Your task to perform on an android device: Search for Mexican restaurants on Maps Image 0: 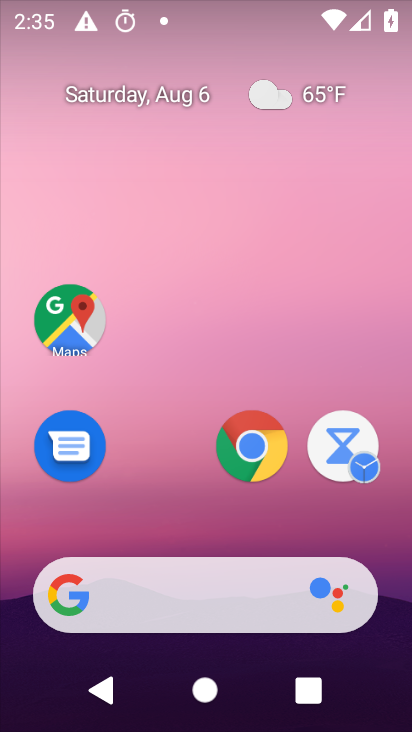
Step 0: drag from (238, 685) to (214, 376)
Your task to perform on an android device: Search for Mexican restaurants on Maps Image 1: 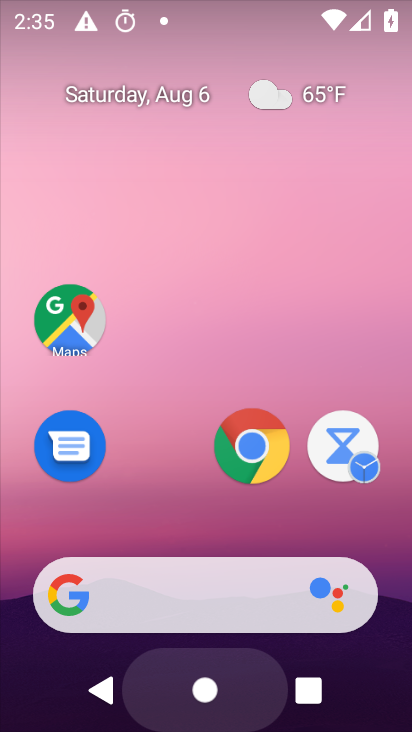
Step 1: drag from (243, 585) to (203, 293)
Your task to perform on an android device: Search for Mexican restaurants on Maps Image 2: 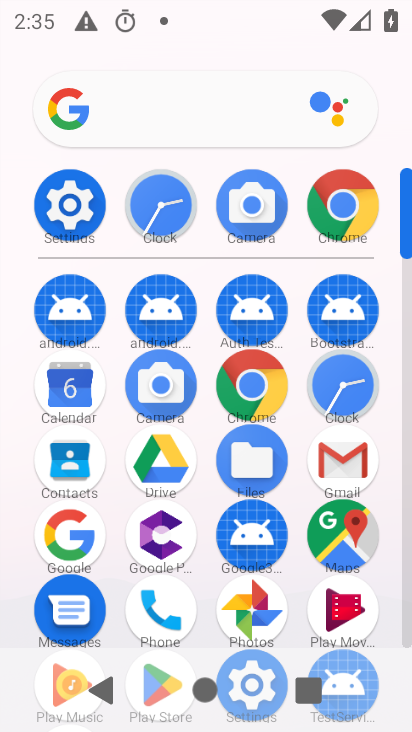
Step 2: click (345, 535)
Your task to perform on an android device: Search for Mexican restaurants on Maps Image 3: 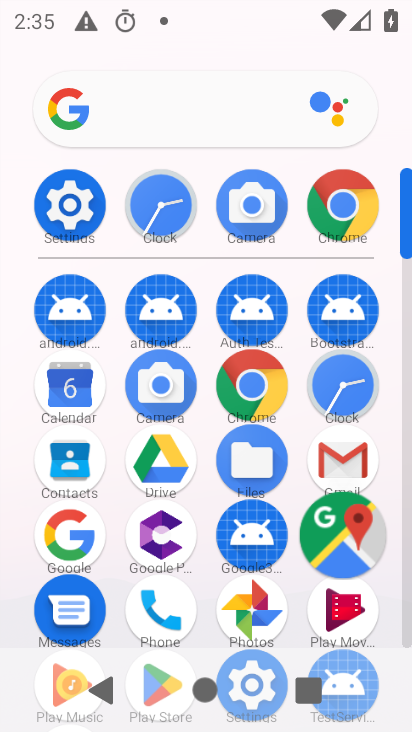
Step 3: click (345, 534)
Your task to perform on an android device: Search for Mexican restaurants on Maps Image 4: 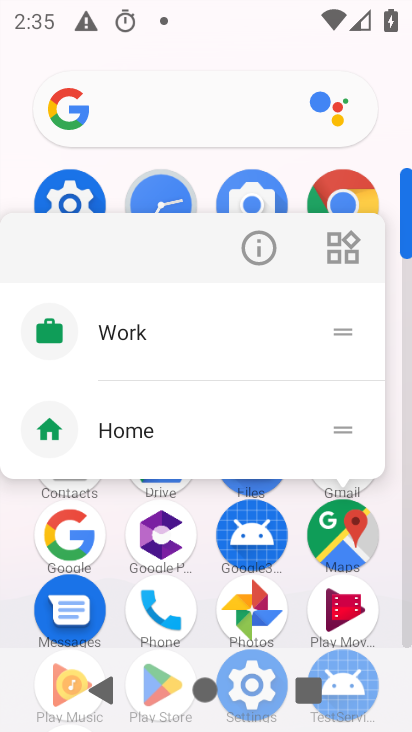
Step 4: click (342, 538)
Your task to perform on an android device: Search for Mexican restaurants on Maps Image 5: 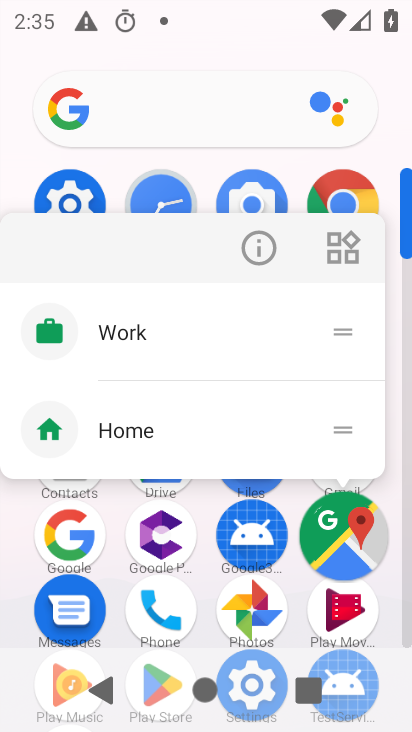
Step 5: click (343, 539)
Your task to perform on an android device: Search for Mexican restaurants on Maps Image 6: 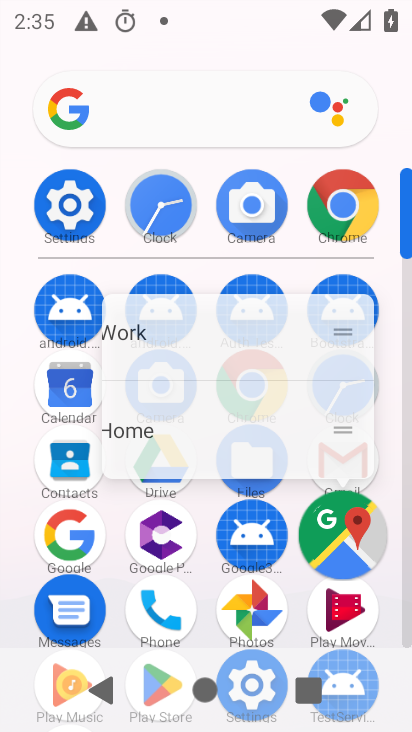
Step 6: click (338, 535)
Your task to perform on an android device: Search for Mexican restaurants on Maps Image 7: 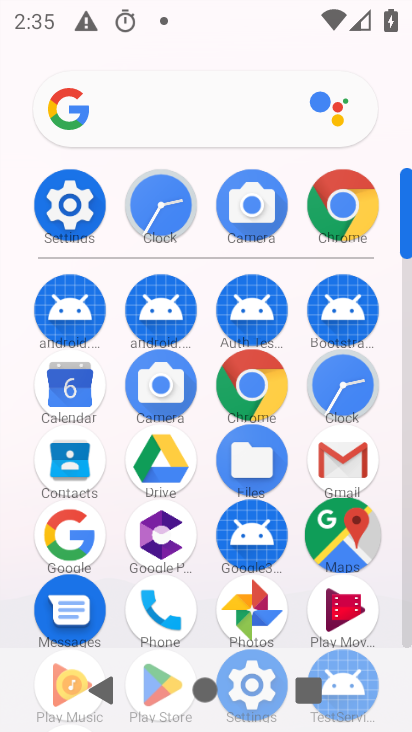
Step 7: click (337, 534)
Your task to perform on an android device: Search for Mexican restaurants on Maps Image 8: 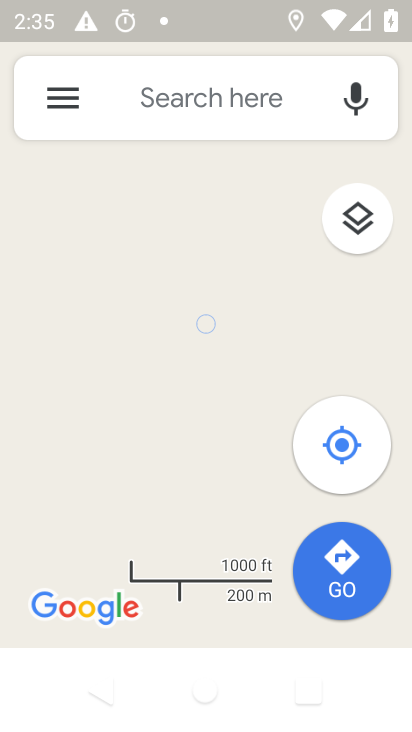
Step 8: click (141, 94)
Your task to perform on an android device: Search for Mexican restaurants on Maps Image 9: 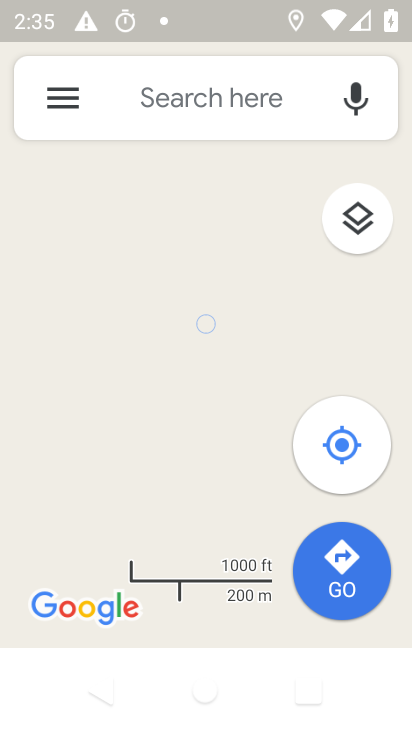
Step 9: click (141, 94)
Your task to perform on an android device: Search for Mexican restaurants on Maps Image 10: 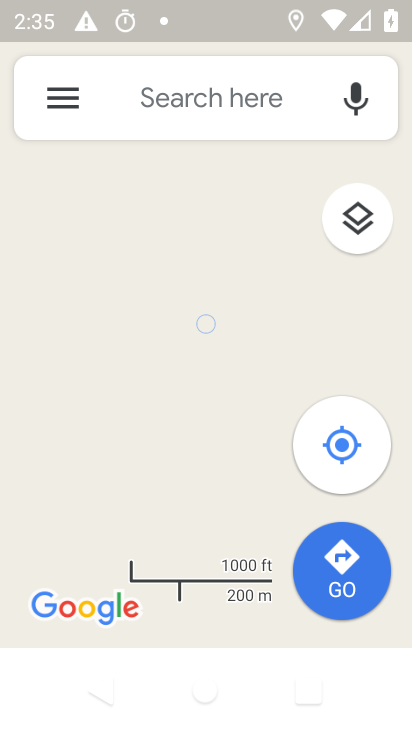
Step 10: click (138, 93)
Your task to perform on an android device: Search for Mexican restaurants on Maps Image 11: 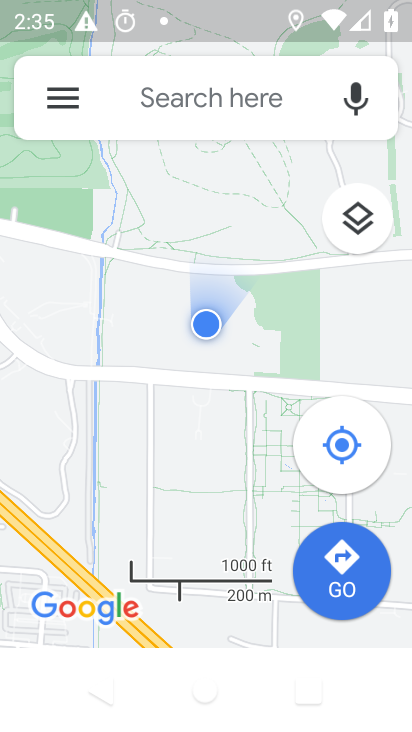
Step 11: click (138, 93)
Your task to perform on an android device: Search for Mexican restaurants on Maps Image 12: 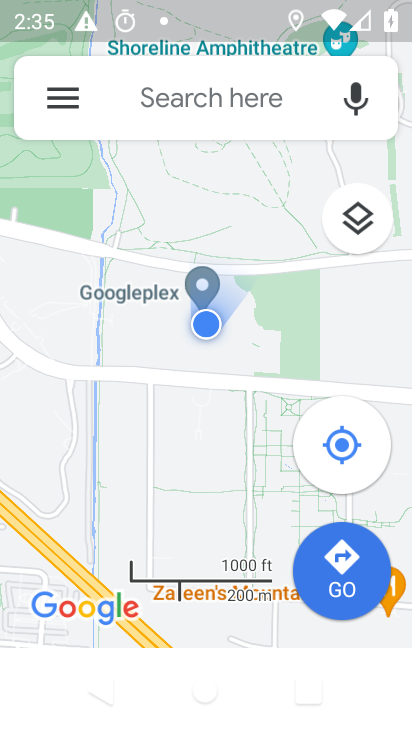
Step 12: click (137, 94)
Your task to perform on an android device: Search for Mexican restaurants on Maps Image 13: 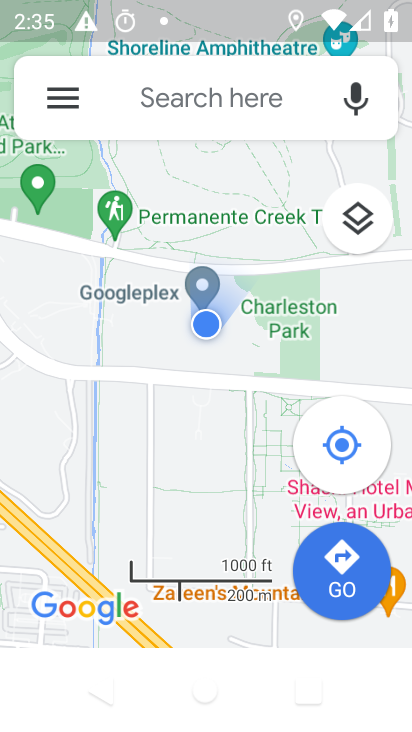
Step 13: click (137, 94)
Your task to perform on an android device: Search for Mexican restaurants on Maps Image 14: 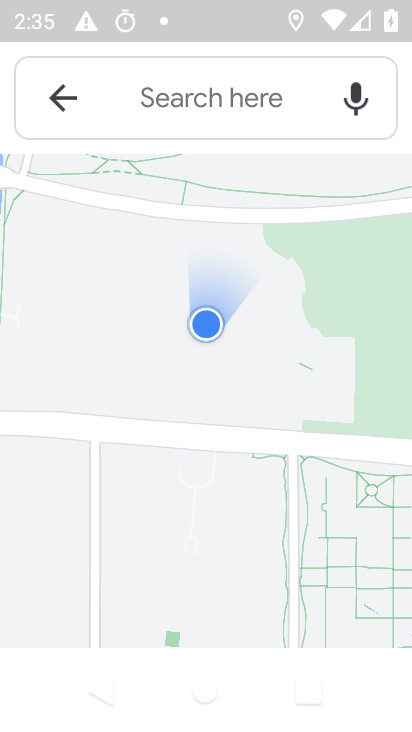
Step 14: click (137, 94)
Your task to perform on an android device: Search for Mexican restaurants on Maps Image 15: 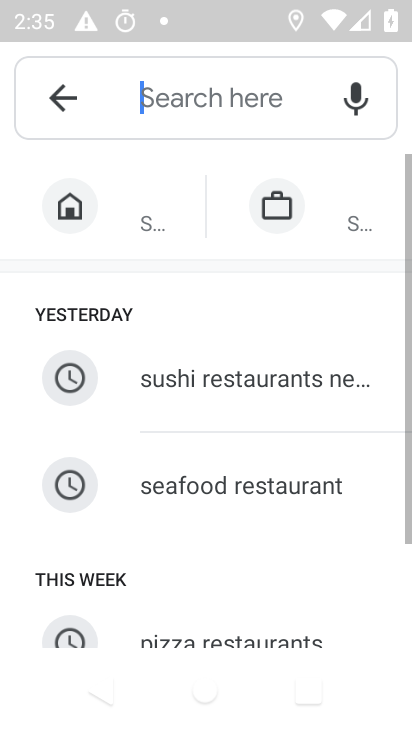
Step 15: click (136, 94)
Your task to perform on an android device: Search for Mexican restaurants on Maps Image 16: 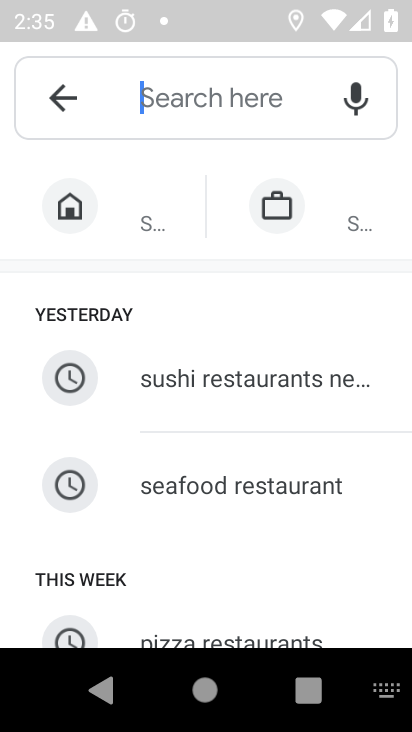
Step 16: drag from (260, 591) to (199, 286)
Your task to perform on an android device: Search for Mexican restaurants on Maps Image 17: 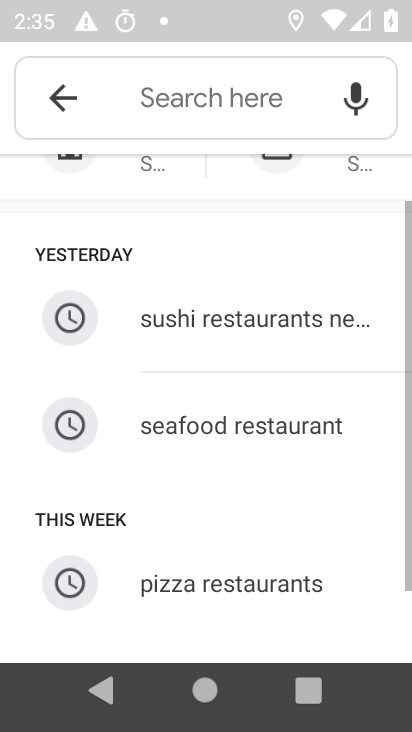
Step 17: drag from (216, 431) to (206, 253)
Your task to perform on an android device: Search for Mexican restaurants on Maps Image 18: 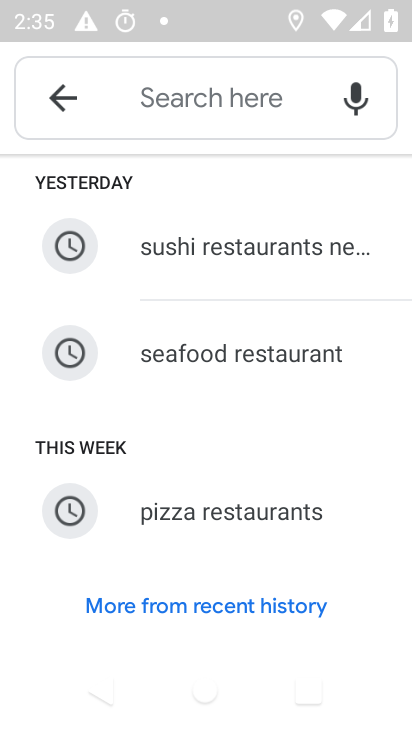
Step 18: click (147, 98)
Your task to perform on an android device: Search for Mexican restaurants on Maps Image 19: 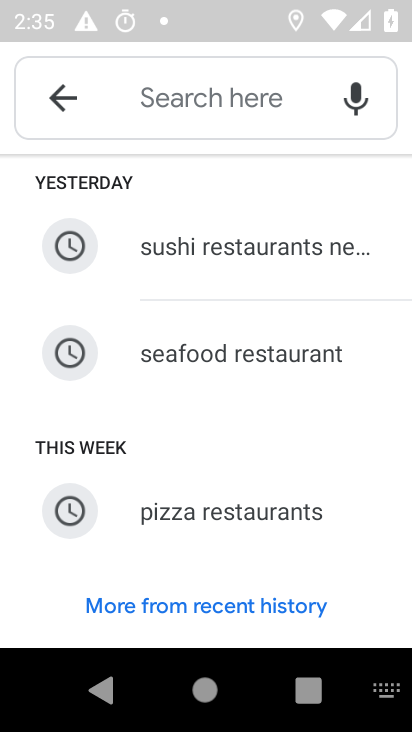
Step 19: type "mexican restaurants"
Your task to perform on an android device: Search for Mexican restaurants on Maps Image 20: 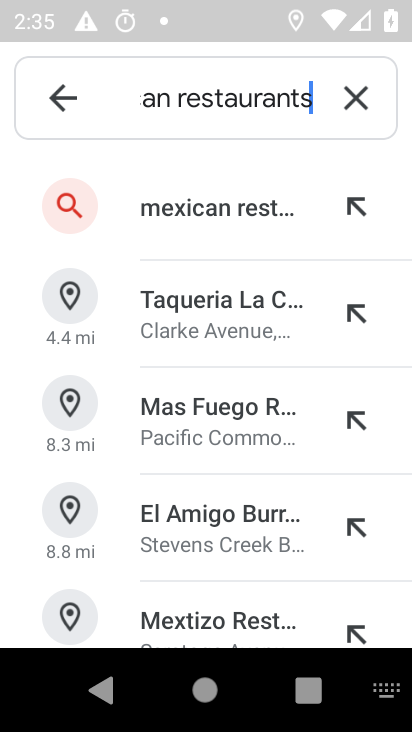
Step 20: click (197, 216)
Your task to perform on an android device: Search for Mexican restaurants on Maps Image 21: 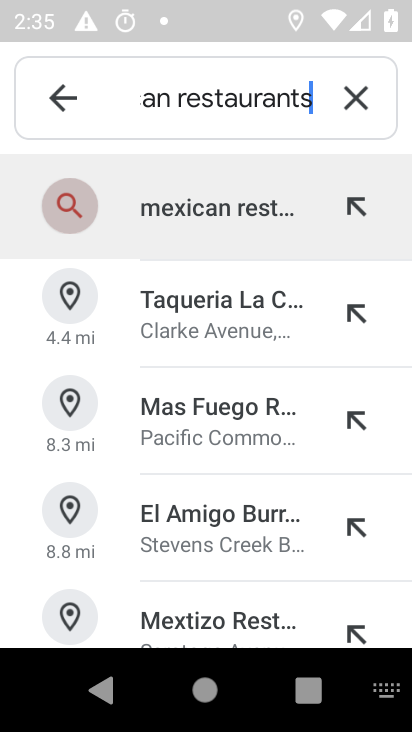
Step 21: click (197, 216)
Your task to perform on an android device: Search for Mexican restaurants on Maps Image 22: 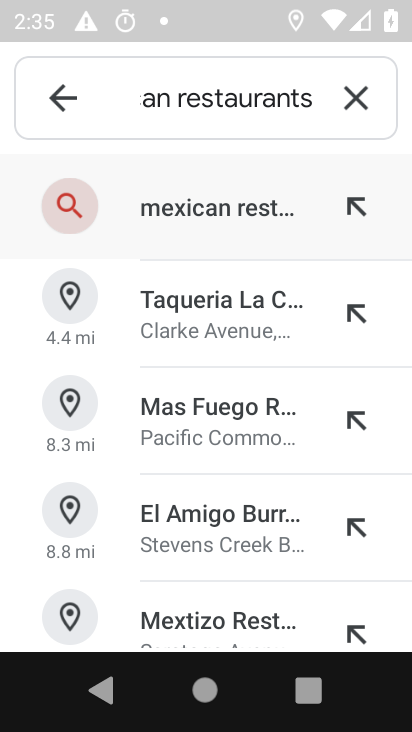
Step 22: click (197, 216)
Your task to perform on an android device: Search for Mexican restaurants on Maps Image 23: 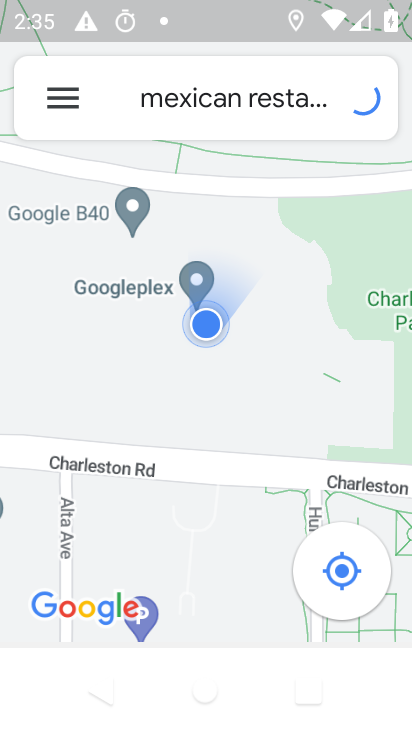
Step 23: click (197, 216)
Your task to perform on an android device: Search for Mexican restaurants on Maps Image 24: 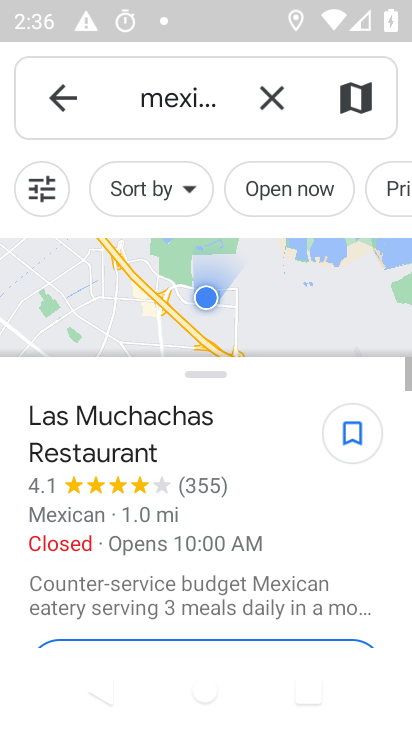
Step 24: task complete